Your task to perform on an android device: Find coffee shops on Maps Image 0: 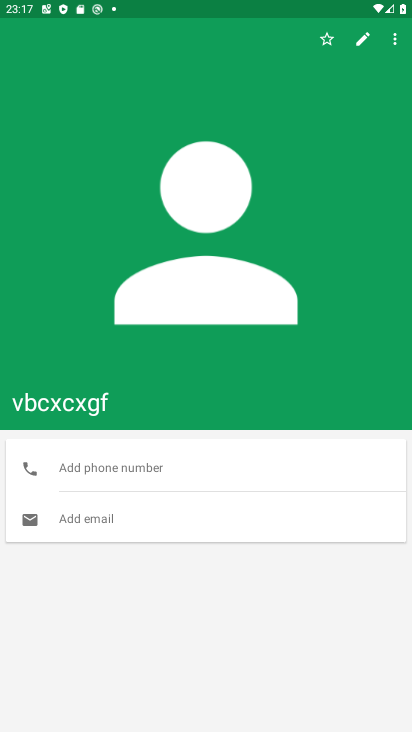
Step 0: press back button
Your task to perform on an android device: Find coffee shops on Maps Image 1: 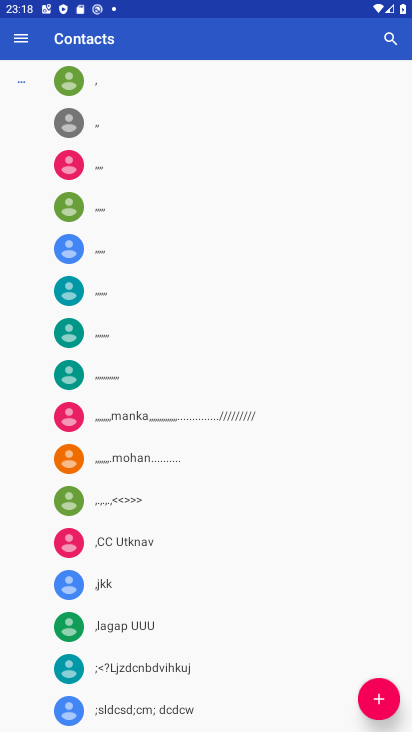
Step 1: press home button
Your task to perform on an android device: Find coffee shops on Maps Image 2: 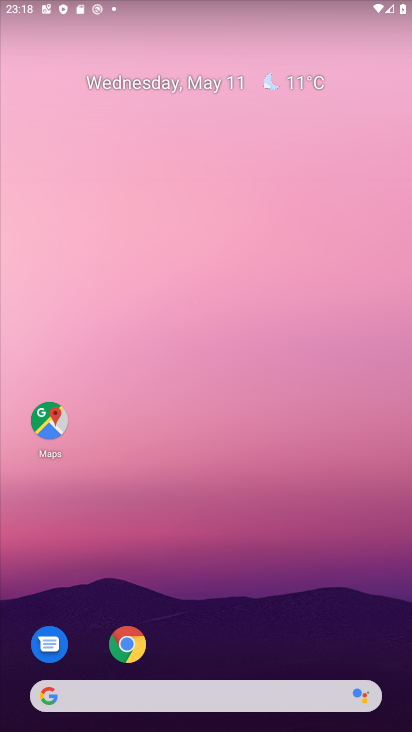
Step 2: click (49, 414)
Your task to perform on an android device: Find coffee shops on Maps Image 3: 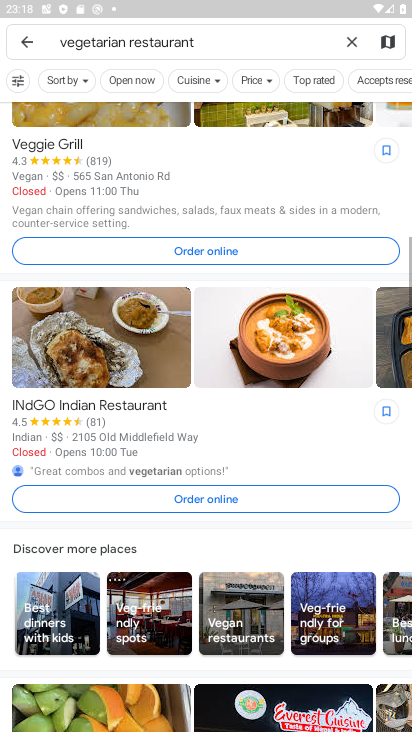
Step 3: click (351, 38)
Your task to perform on an android device: Find coffee shops on Maps Image 4: 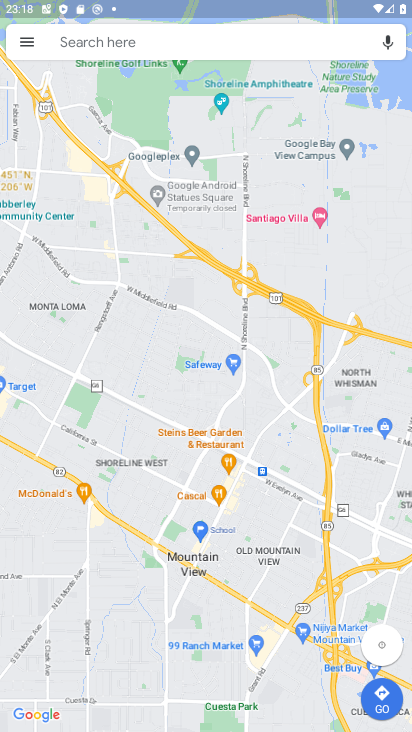
Step 4: click (103, 34)
Your task to perform on an android device: Find coffee shops on Maps Image 5: 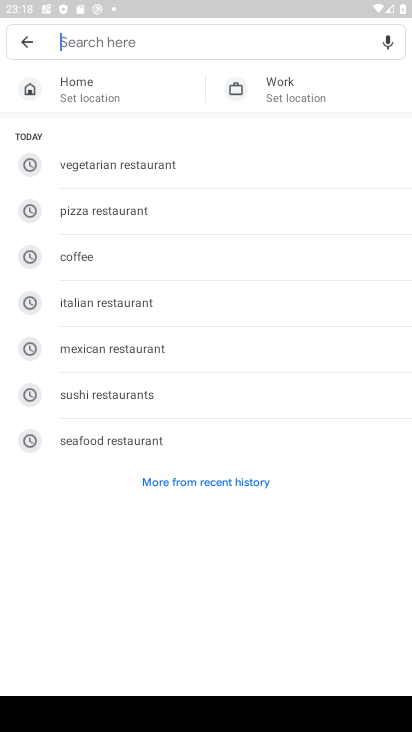
Step 5: click (90, 255)
Your task to perform on an android device: Find coffee shops on Maps Image 6: 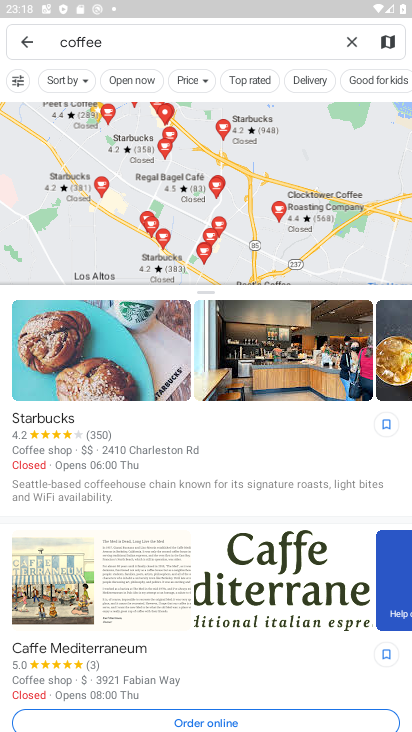
Step 6: task complete